Your task to perform on an android device: Open Amazon Image 0: 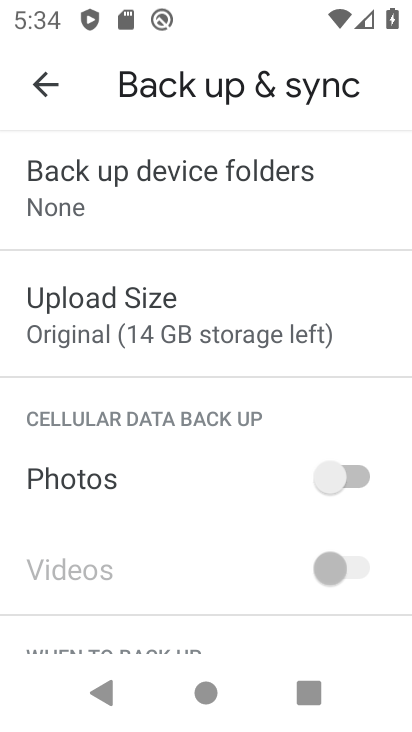
Step 0: press home button
Your task to perform on an android device: Open Amazon Image 1: 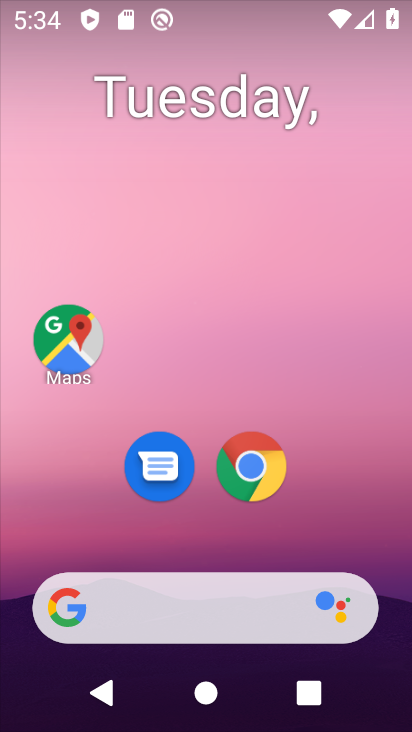
Step 1: click (262, 493)
Your task to perform on an android device: Open Amazon Image 2: 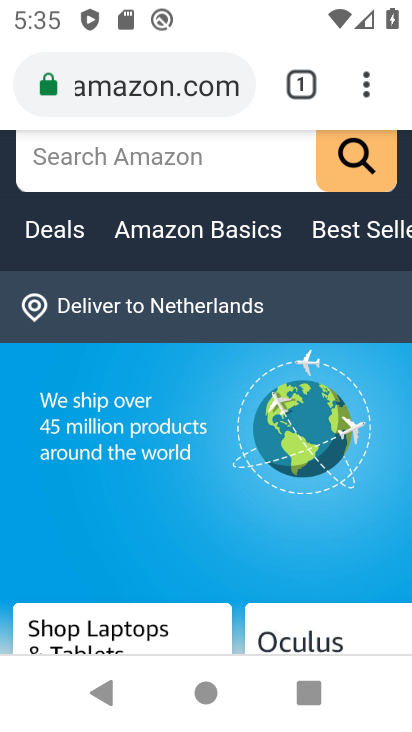
Step 2: task complete